Your task to perform on an android device: Open Google Maps and go to "Timeline" Image 0: 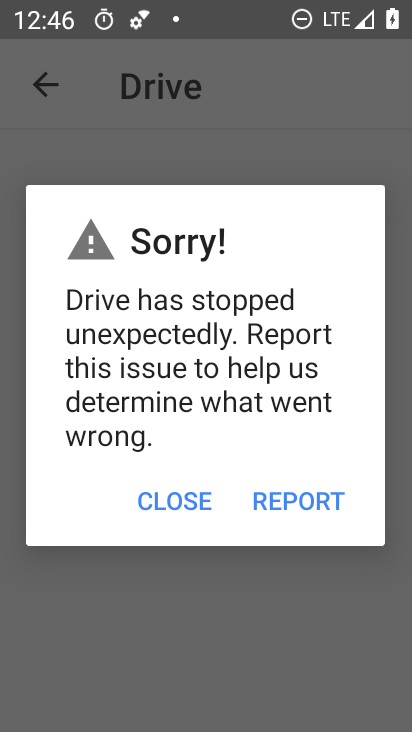
Step 0: press home button
Your task to perform on an android device: Open Google Maps and go to "Timeline" Image 1: 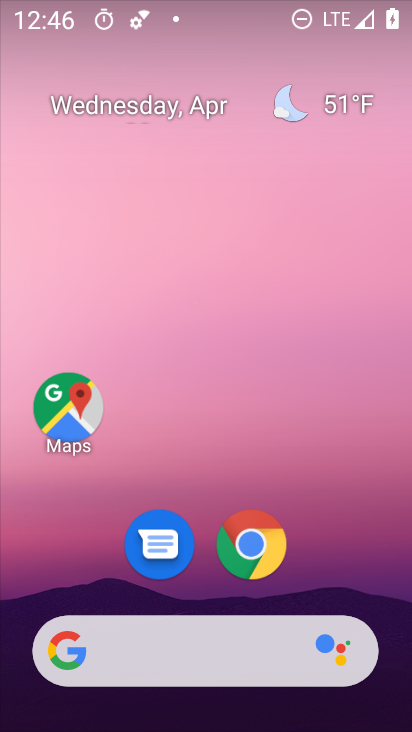
Step 1: drag from (350, 503) to (350, 72)
Your task to perform on an android device: Open Google Maps and go to "Timeline" Image 2: 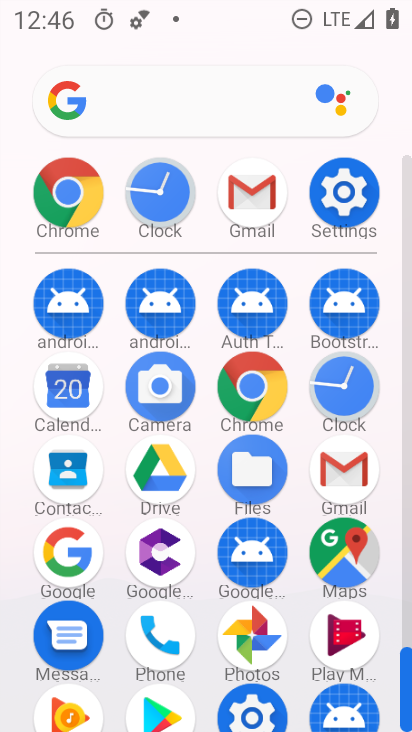
Step 2: click (356, 565)
Your task to perform on an android device: Open Google Maps and go to "Timeline" Image 3: 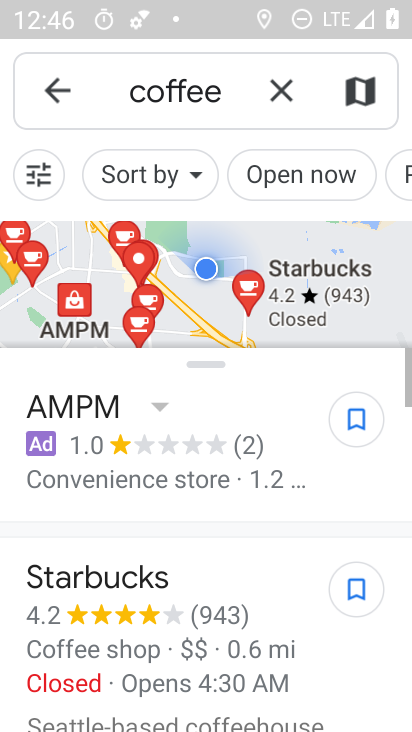
Step 3: press back button
Your task to perform on an android device: Open Google Maps and go to "Timeline" Image 4: 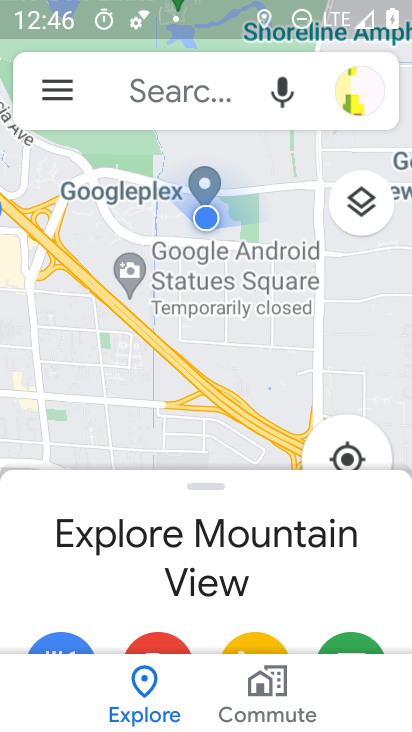
Step 4: click (57, 95)
Your task to perform on an android device: Open Google Maps and go to "Timeline" Image 5: 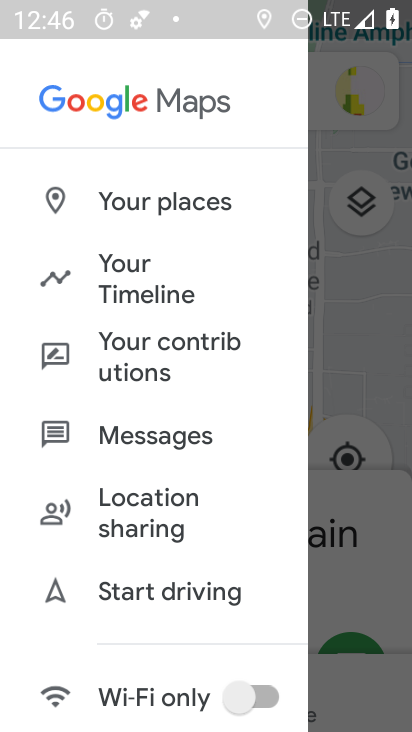
Step 5: click (149, 275)
Your task to perform on an android device: Open Google Maps and go to "Timeline" Image 6: 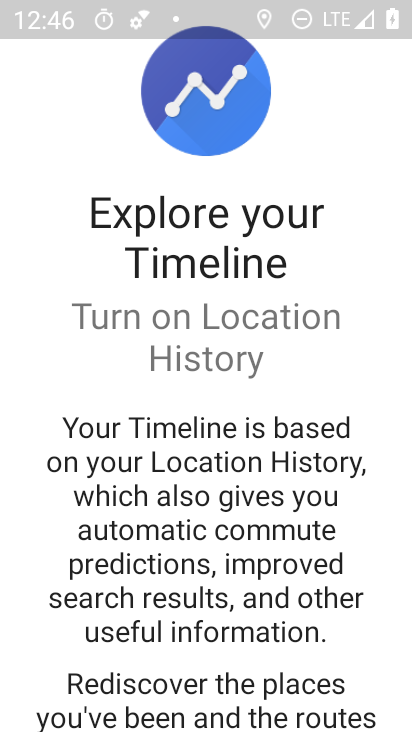
Step 6: task complete